Your task to perform on an android device: Search for pizza restaurants on Maps Image 0: 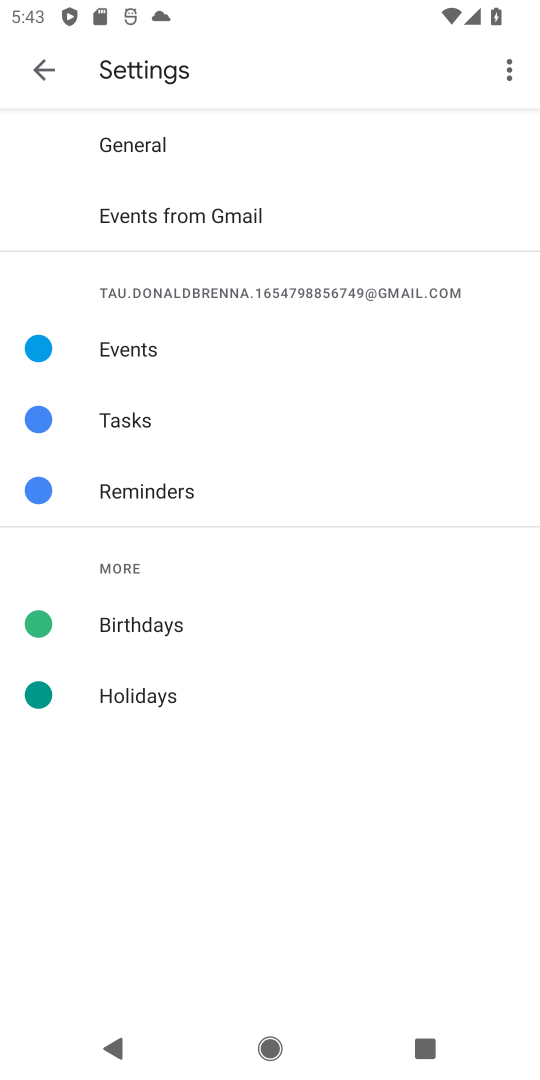
Step 0: press back button
Your task to perform on an android device: Search for pizza restaurants on Maps Image 1: 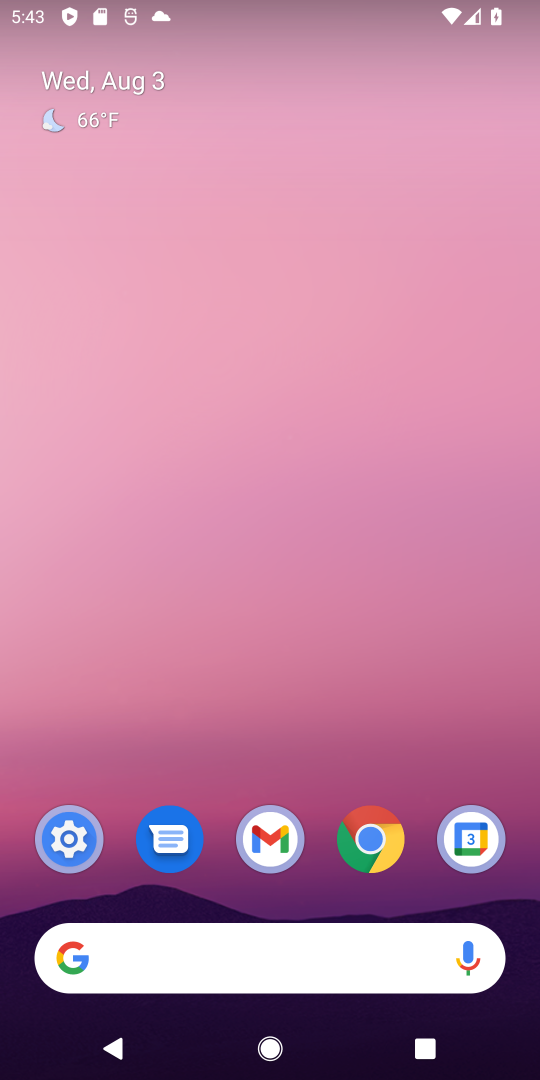
Step 1: drag from (231, 779) to (327, 13)
Your task to perform on an android device: Search for pizza restaurants on Maps Image 2: 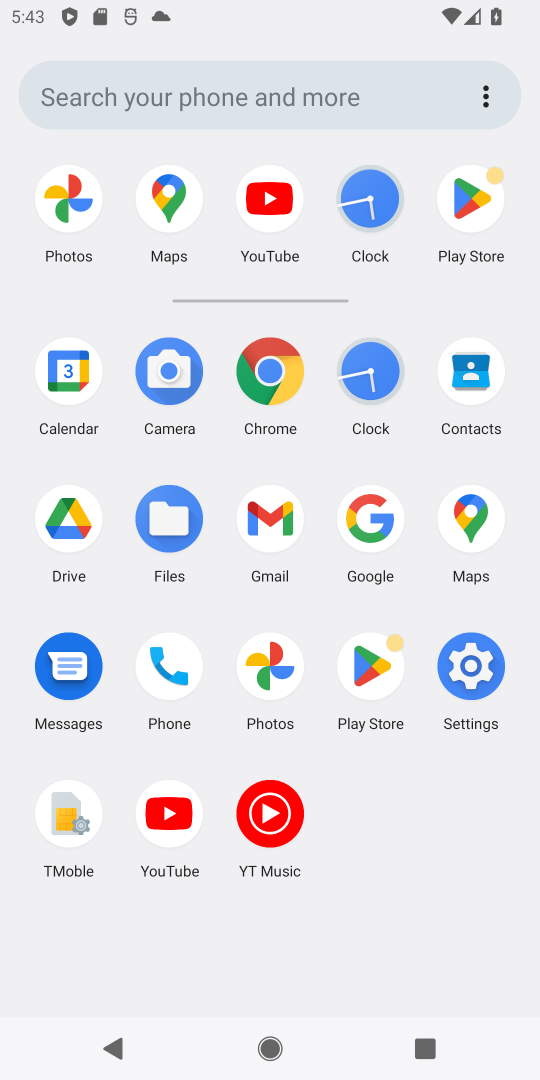
Step 2: click (472, 512)
Your task to perform on an android device: Search for pizza restaurants on Maps Image 3: 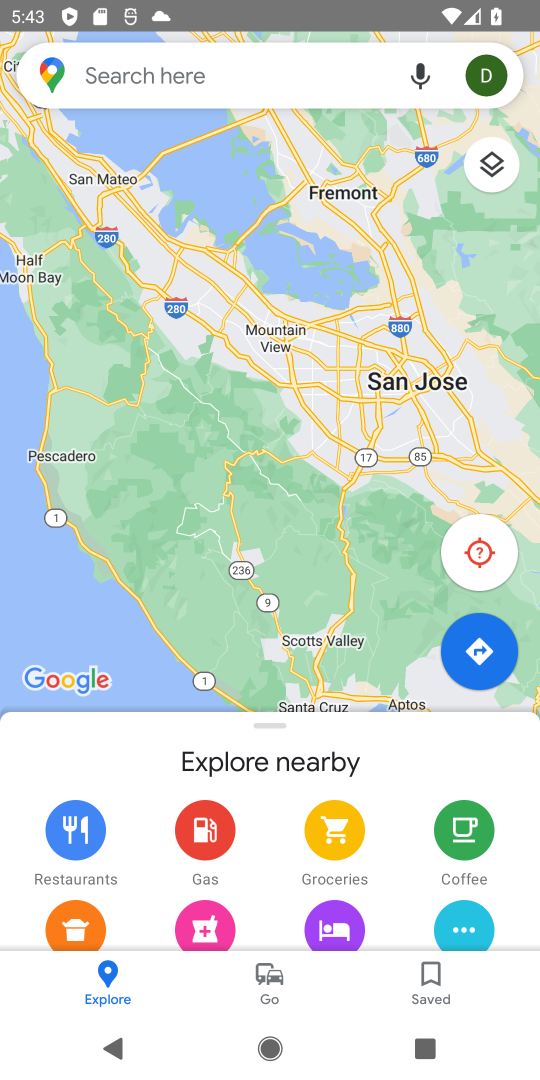
Step 3: click (193, 65)
Your task to perform on an android device: Search for pizza restaurants on Maps Image 4: 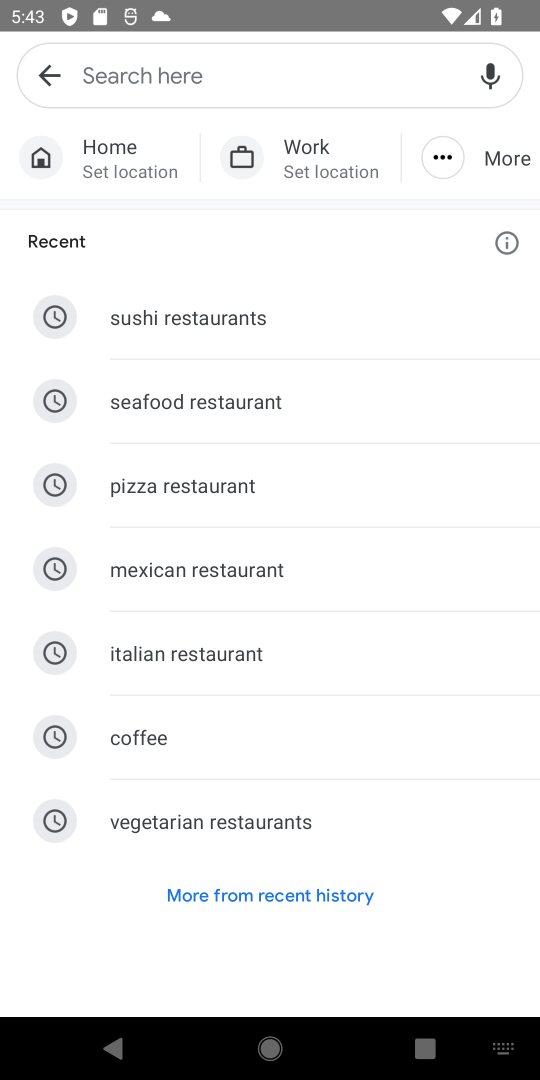
Step 4: click (180, 484)
Your task to perform on an android device: Search for pizza restaurants on Maps Image 5: 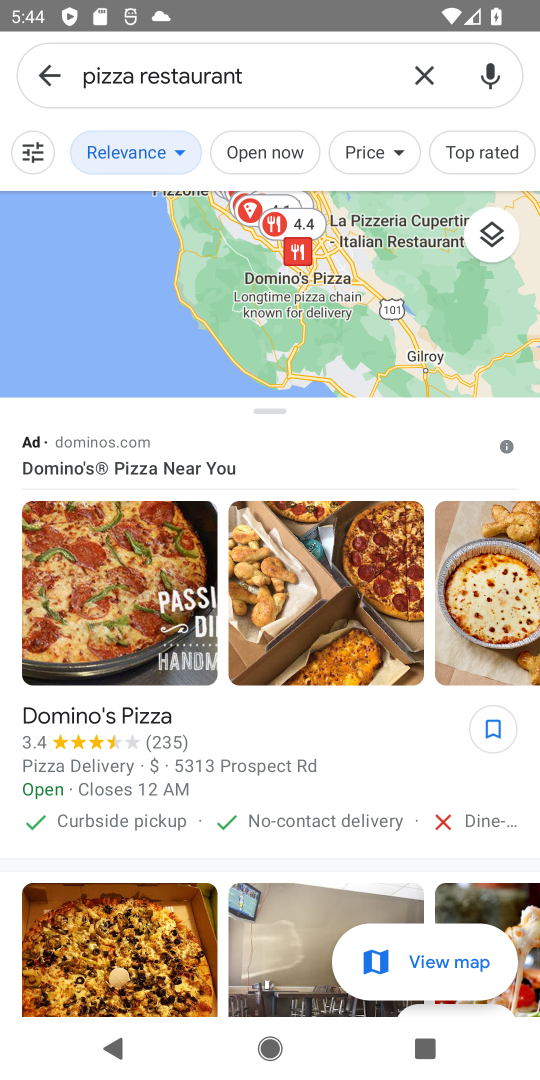
Step 5: task complete